Your task to perform on an android device: turn off javascript in the chrome app Image 0: 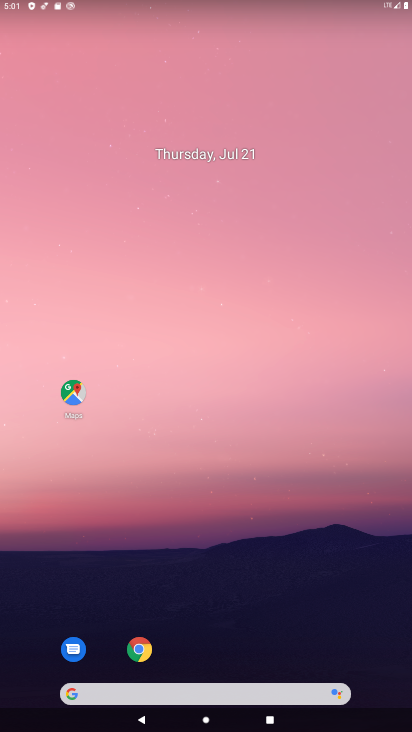
Step 0: click (140, 649)
Your task to perform on an android device: turn off javascript in the chrome app Image 1: 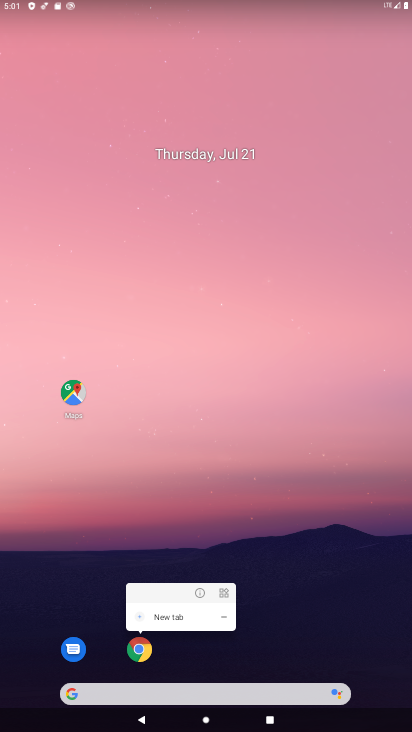
Step 1: click (140, 649)
Your task to perform on an android device: turn off javascript in the chrome app Image 2: 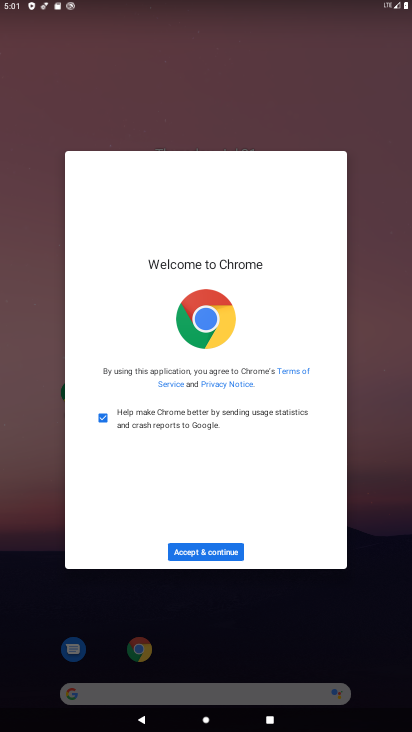
Step 2: click (211, 546)
Your task to perform on an android device: turn off javascript in the chrome app Image 3: 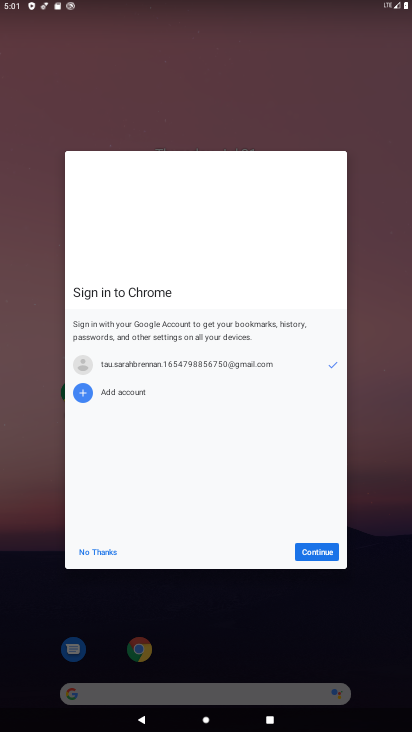
Step 3: click (324, 549)
Your task to perform on an android device: turn off javascript in the chrome app Image 4: 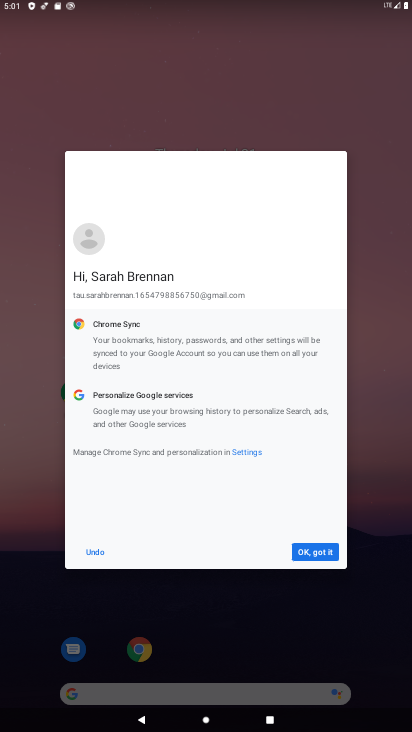
Step 4: click (317, 548)
Your task to perform on an android device: turn off javascript in the chrome app Image 5: 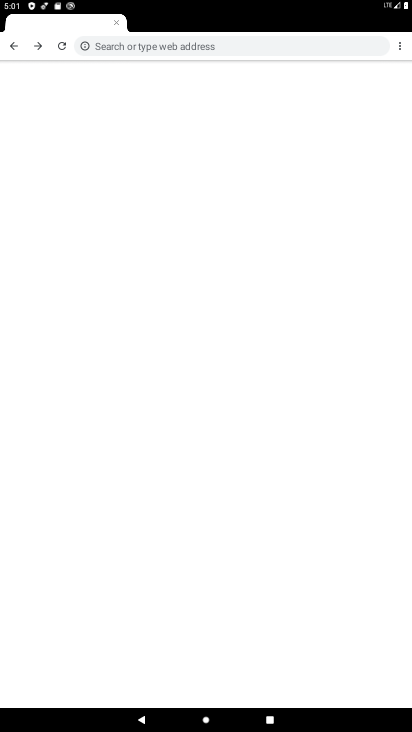
Step 5: drag from (398, 43) to (306, 210)
Your task to perform on an android device: turn off javascript in the chrome app Image 6: 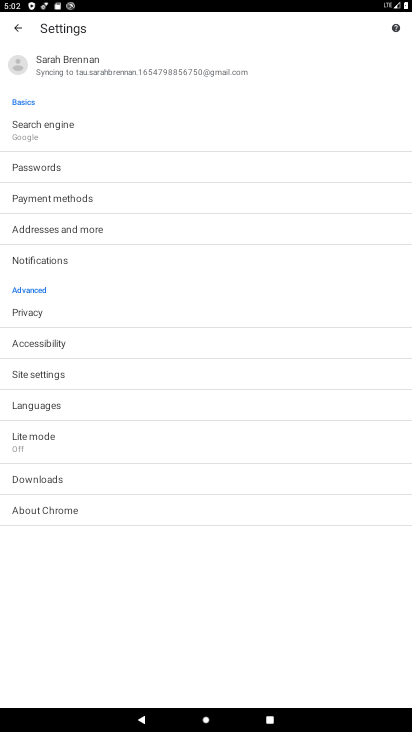
Step 6: click (65, 376)
Your task to perform on an android device: turn off javascript in the chrome app Image 7: 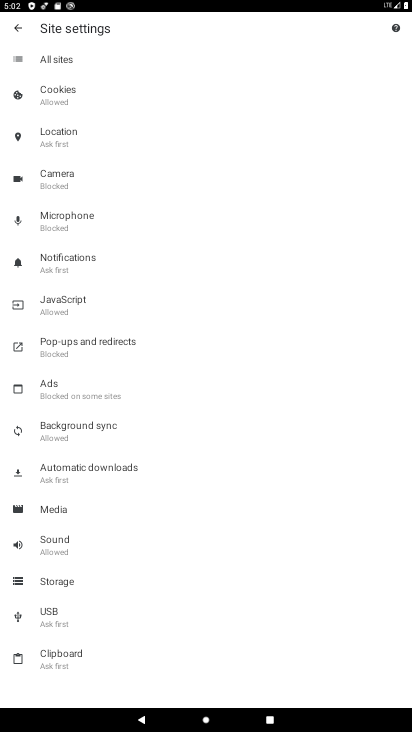
Step 7: click (67, 292)
Your task to perform on an android device: turn off javascript in the chrome app Image 8: 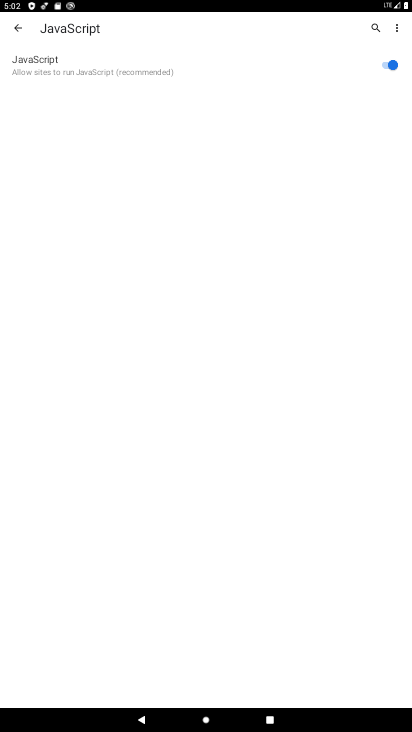
Step 8: click (394, 63)
Your task to perform on an android device: turn off javascript in the chrome app Image 9: 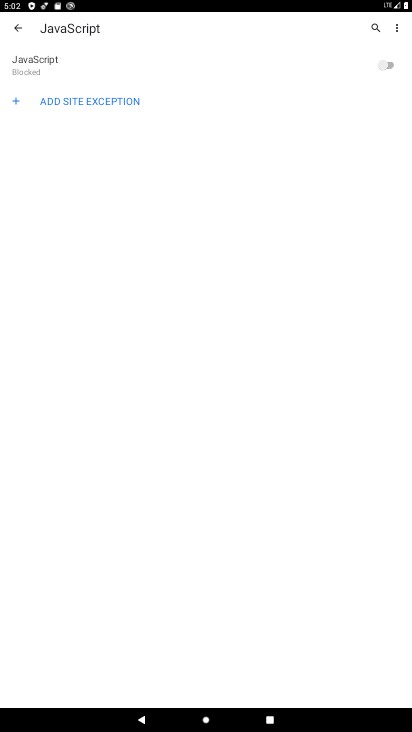
Step 9: task complete